Your task to perform on an android device: Open calendar and show me the fourth week of next month Image 0: 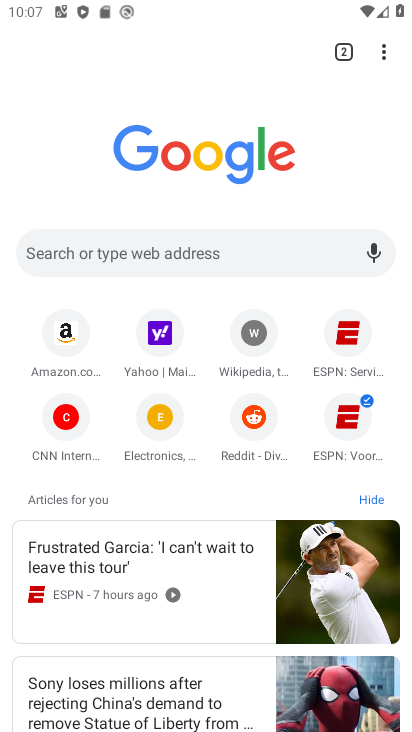
Step 0: press home button
Your task to perform on an android device: Open calendar and show me the fourth week of next month Image 1: 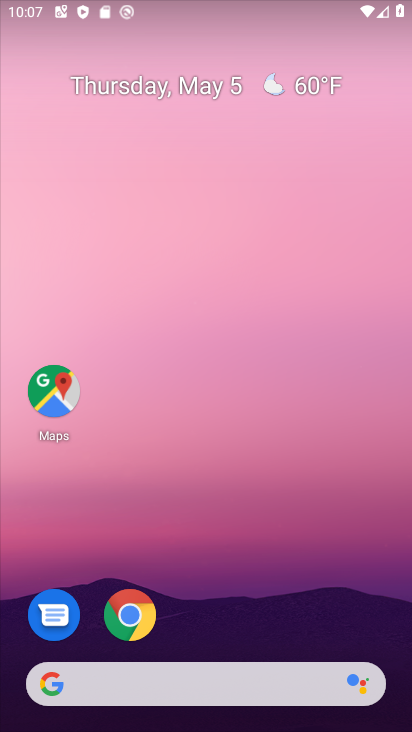
Step 1: drag from (241, 607) to (347, 77)
Your task to perform on an android device: Open calendar and show me the fourth week of next month Image 2: 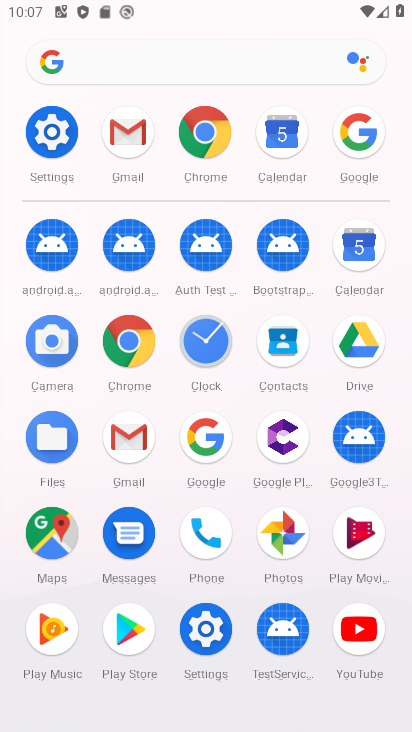
Step 2: drag from (158, 423) to (166, 240)
Your task to perform on an android device: Open calendar and show me the fourth week of next month Image 3: 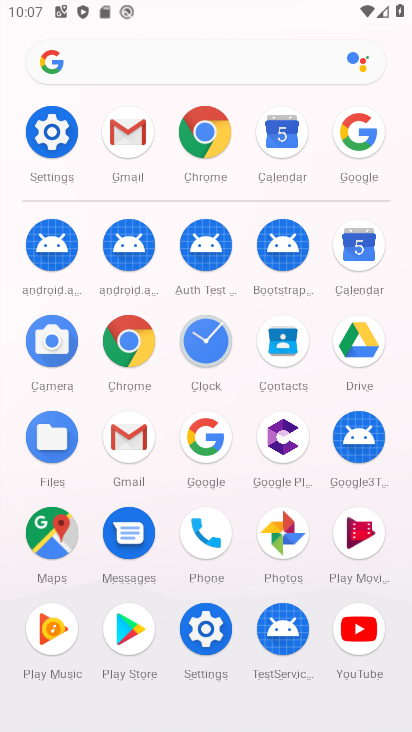
Step 3: drag from (222, 307) to (222, 449)
Your task to perform on an android device: Open calendar and show me the fourth week of next month Image 4: 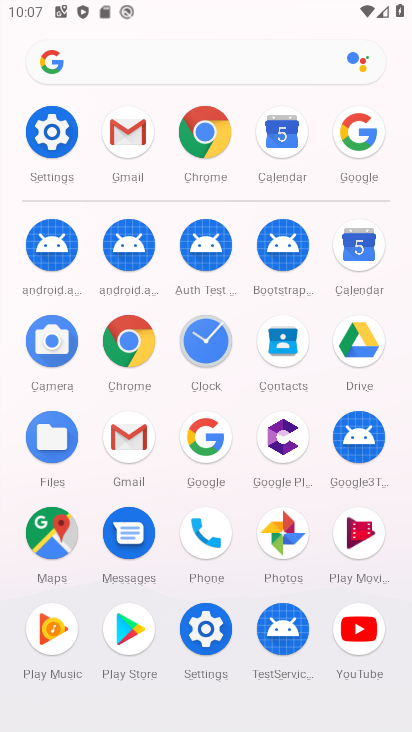
Step 4: click (358, 247)
Your task to perform on an android device: Open calendar and show me the fourth week of next month Image 5: 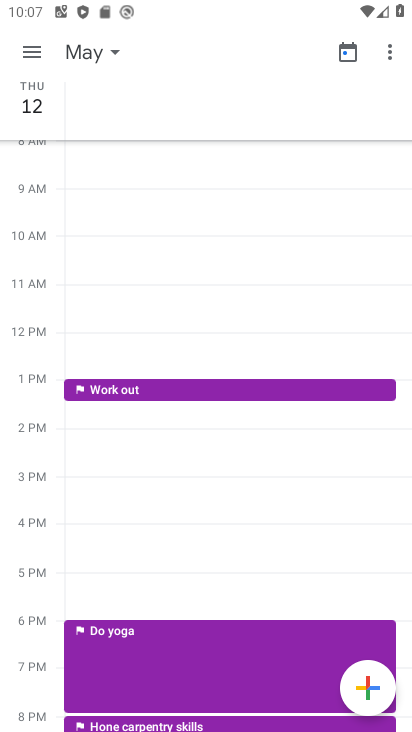
Step 5: click (113, 51)
Your task to perform on an android device: Open calendar and show me the fourth week of next month Image 6: 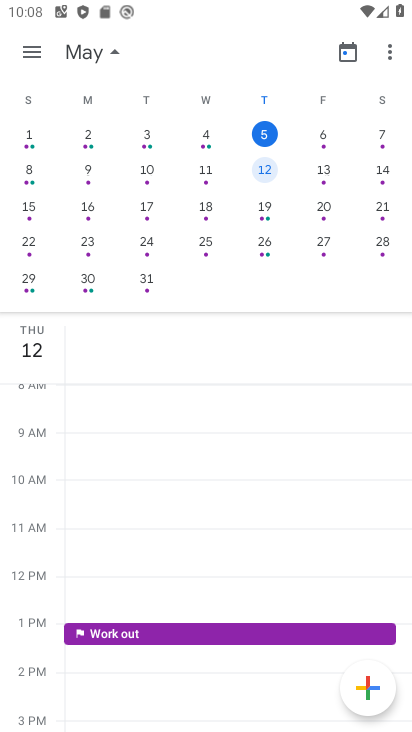
Step 6: drag from (387, 287) to (4, 262)
Your task to perform on an android device: Open calendar and show me the fourth week of next month Image 7: 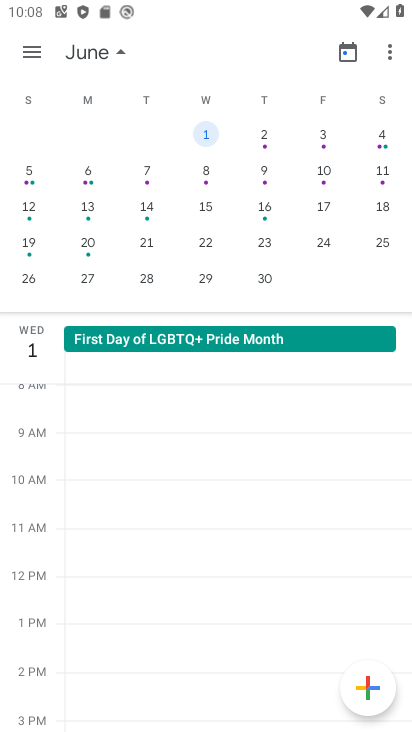
Step 7: click (206, 240)
Your task to perform on an android device: Open calendar and show me the fourth week of next month Image 8: 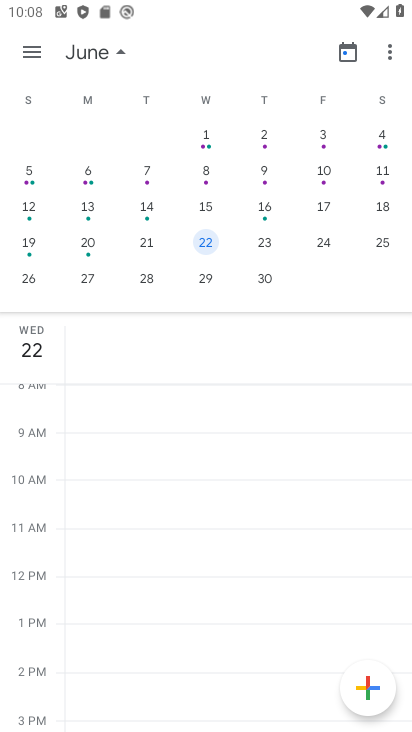
Step 8: task complete